Your task to perform on an android device: Open calendar and show me the first week of next month Image 0: 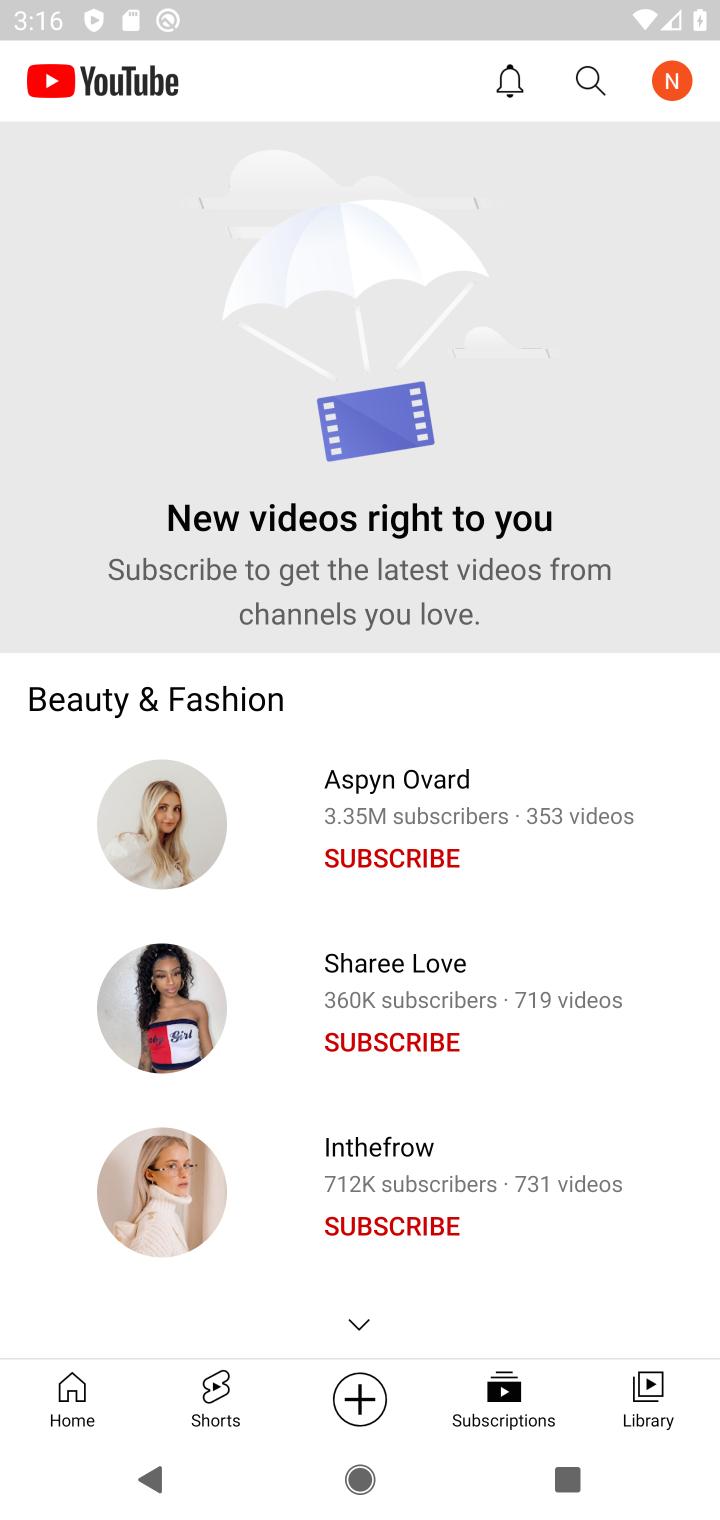
Step 0: press home button
Your task to perform on an android device: Open calendar and show me the first week of next month Image 1: 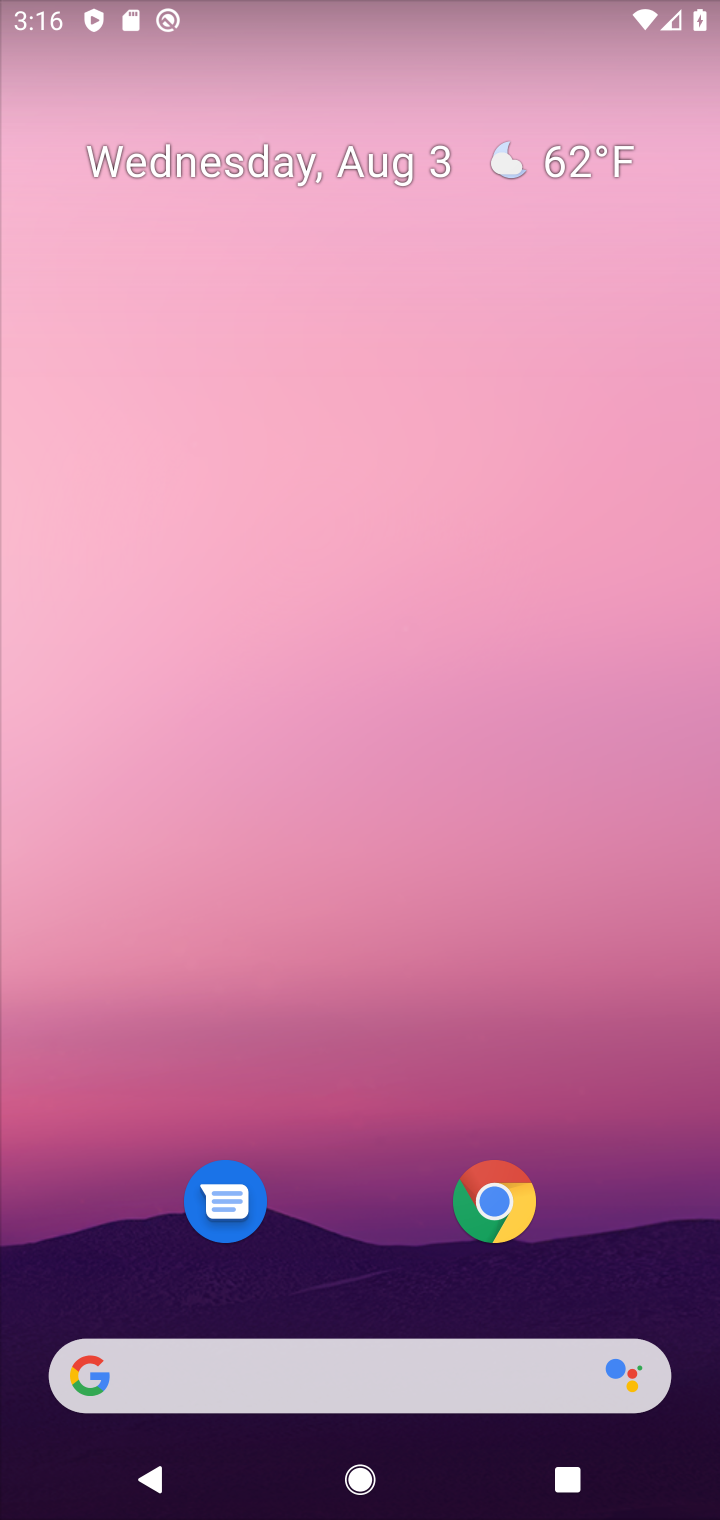
Step 1: drag from (351, 1269) to (396, 130)
Your task to perform on an android device: Open calendar and show me the first week of next month Image 2: 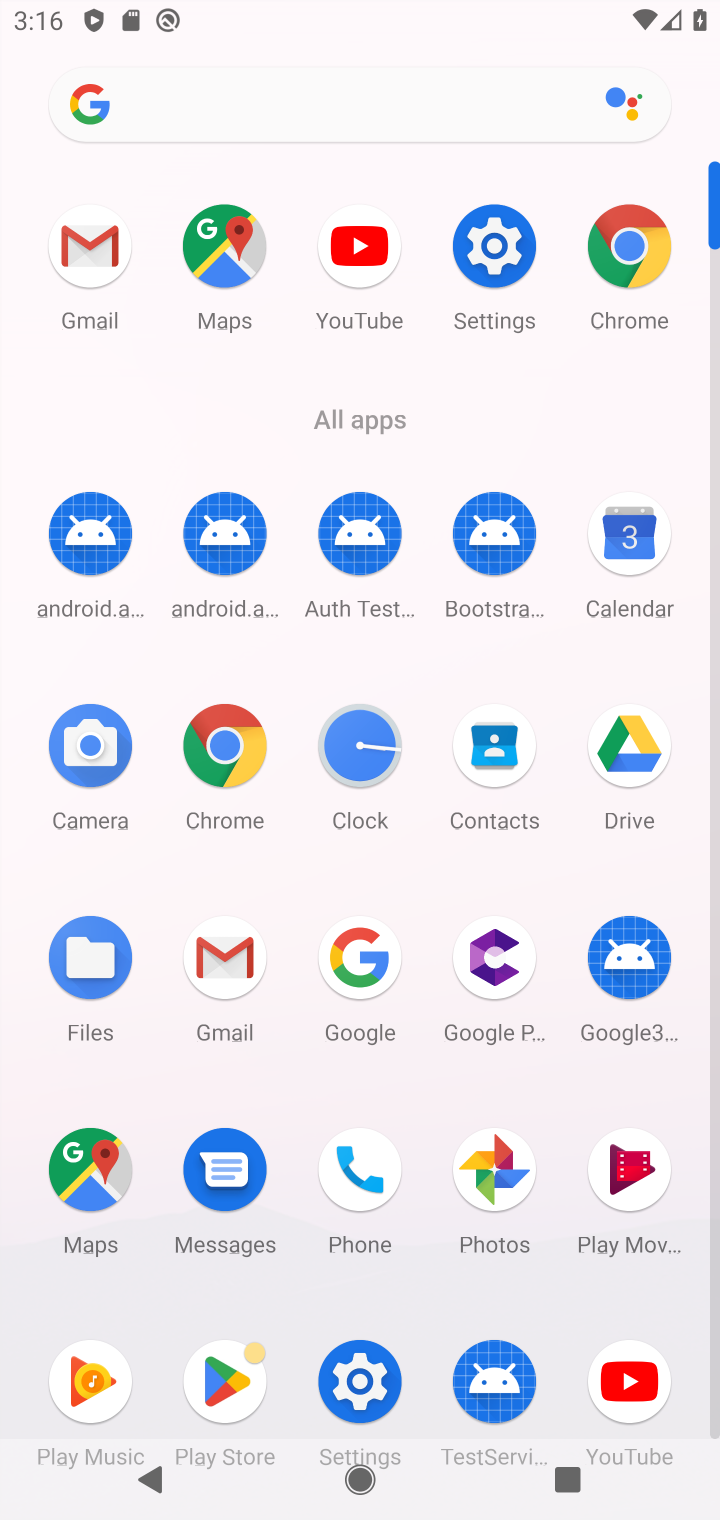
Step 2: click (627, 575)
Your task to perform on an android device: Open calendar and show me the first week of next month Image 3: 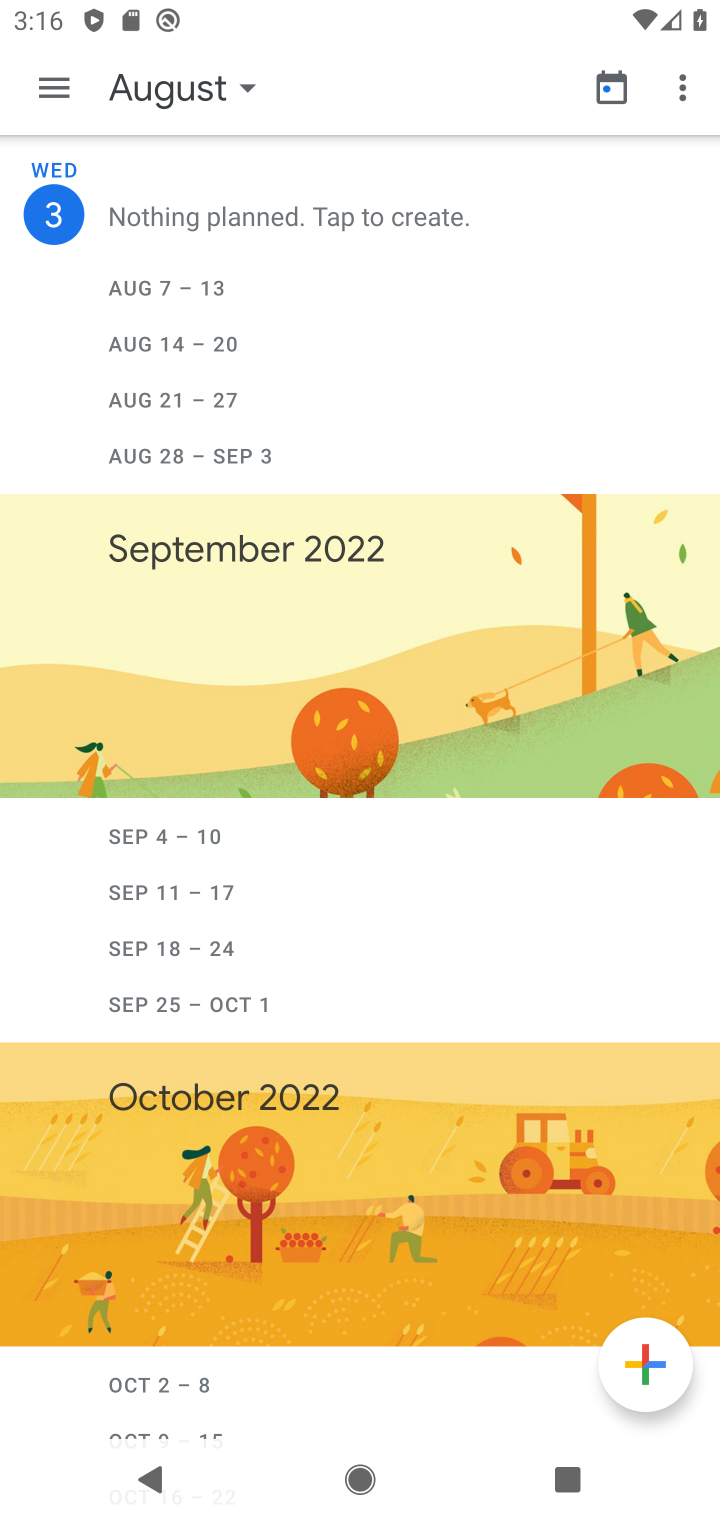
Step 3: click (159, 84)
Your task to perform on an android device: Open calendar and show me the first week of next month Image 4: 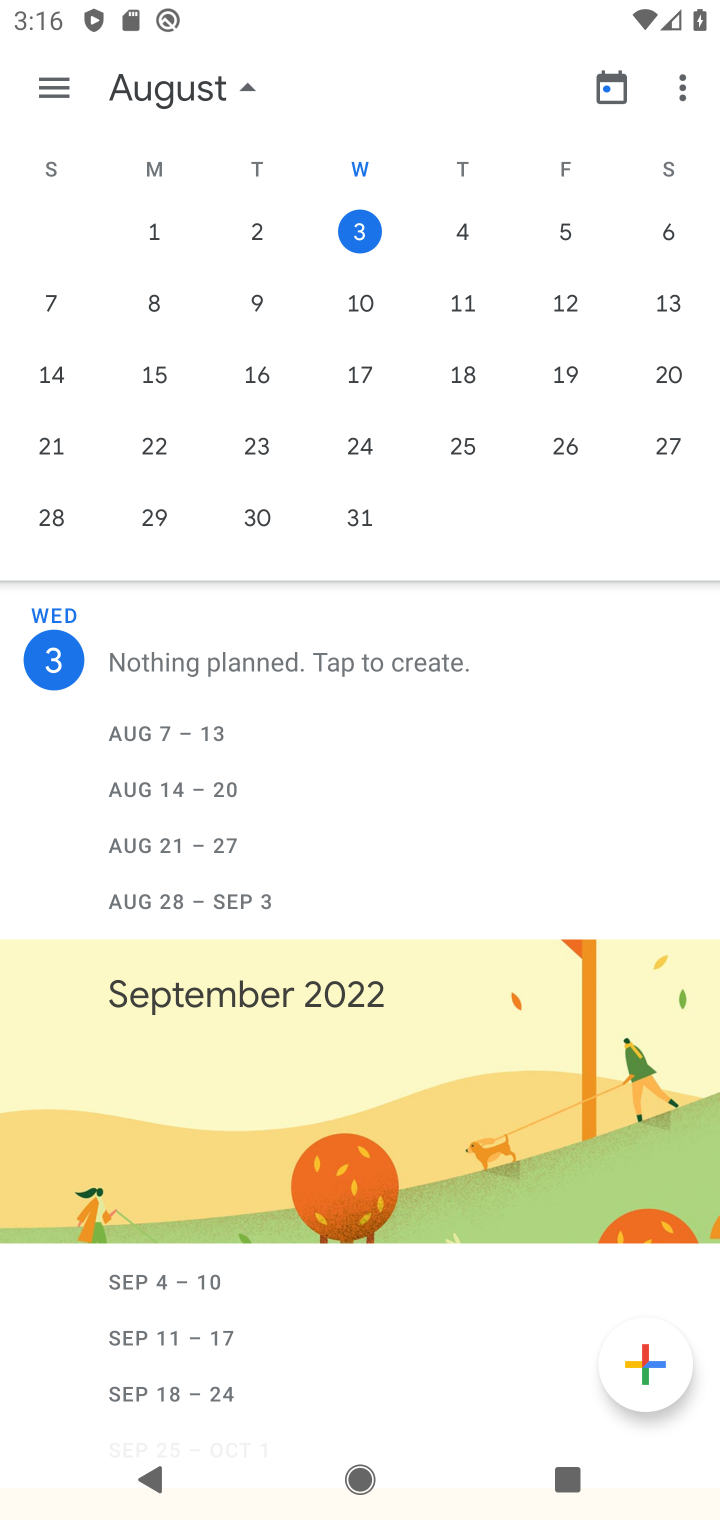
Step 4: drag from (621, 367) to (221, 320)
Your task to perform on an android device: Open calendar and show me the first week of next month Image 5: 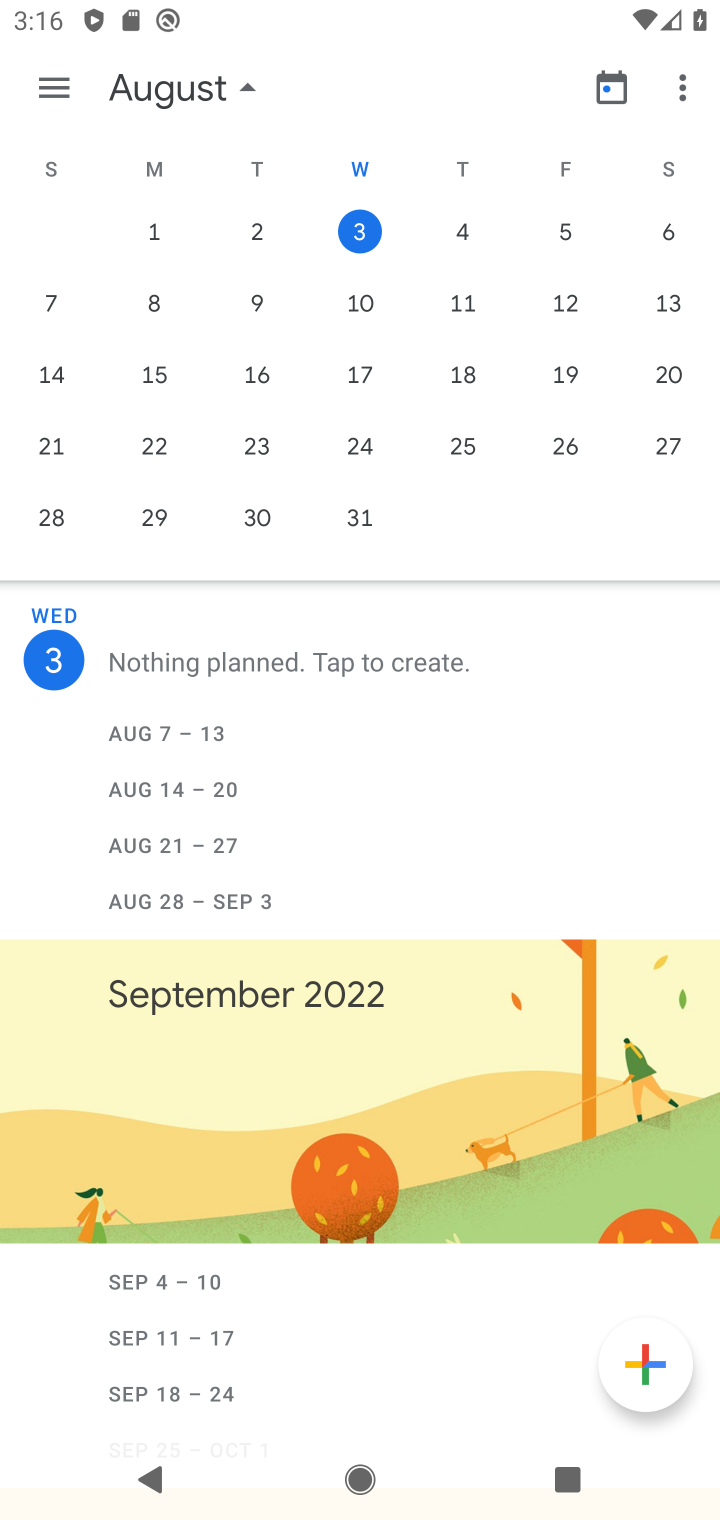
Step 5: drag from (666, 373) to (26, 331)
Your task to perform on an android device: Open calendar and show me the first week of next month Image 6: 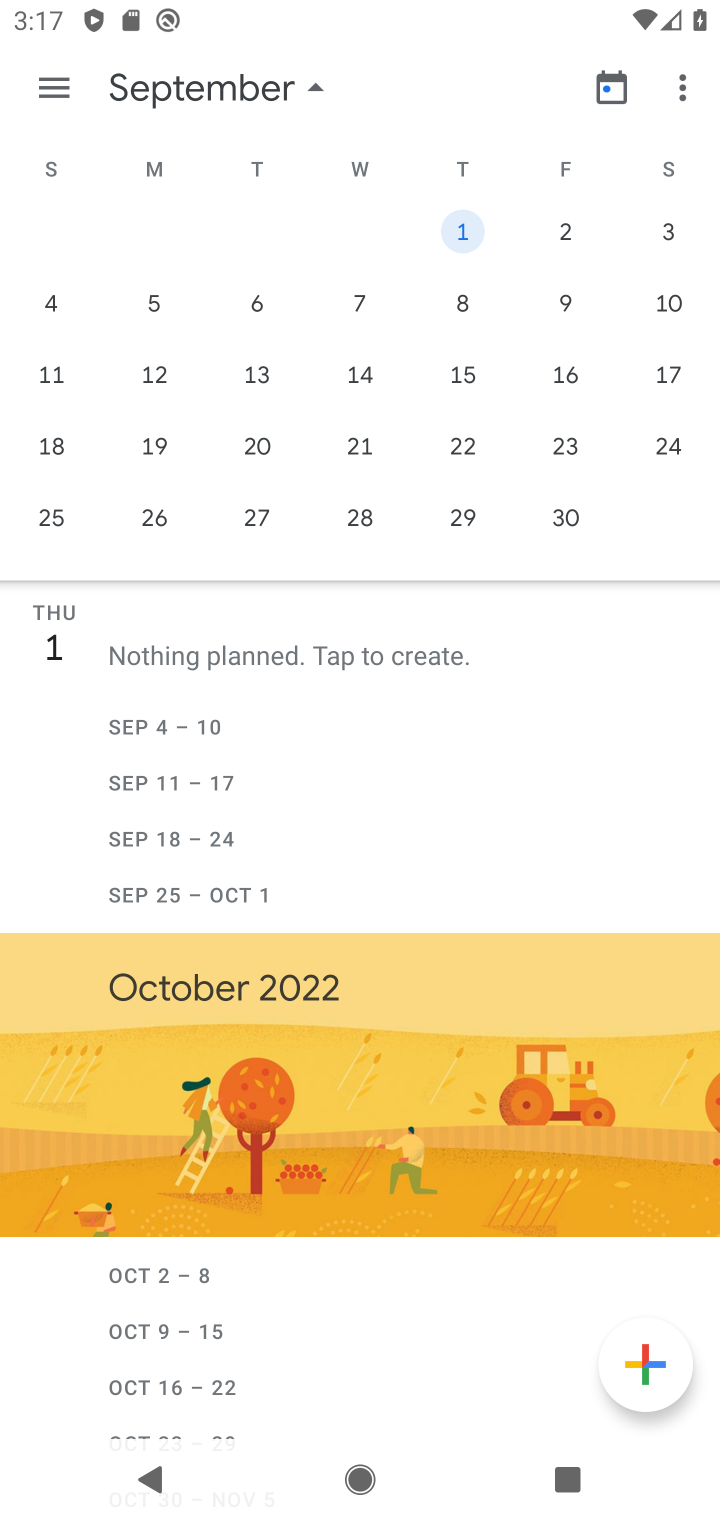
Step 6: click (443, 225)
Your task to perform on an android device: Open calendar and show me the first week of next month Image 7: 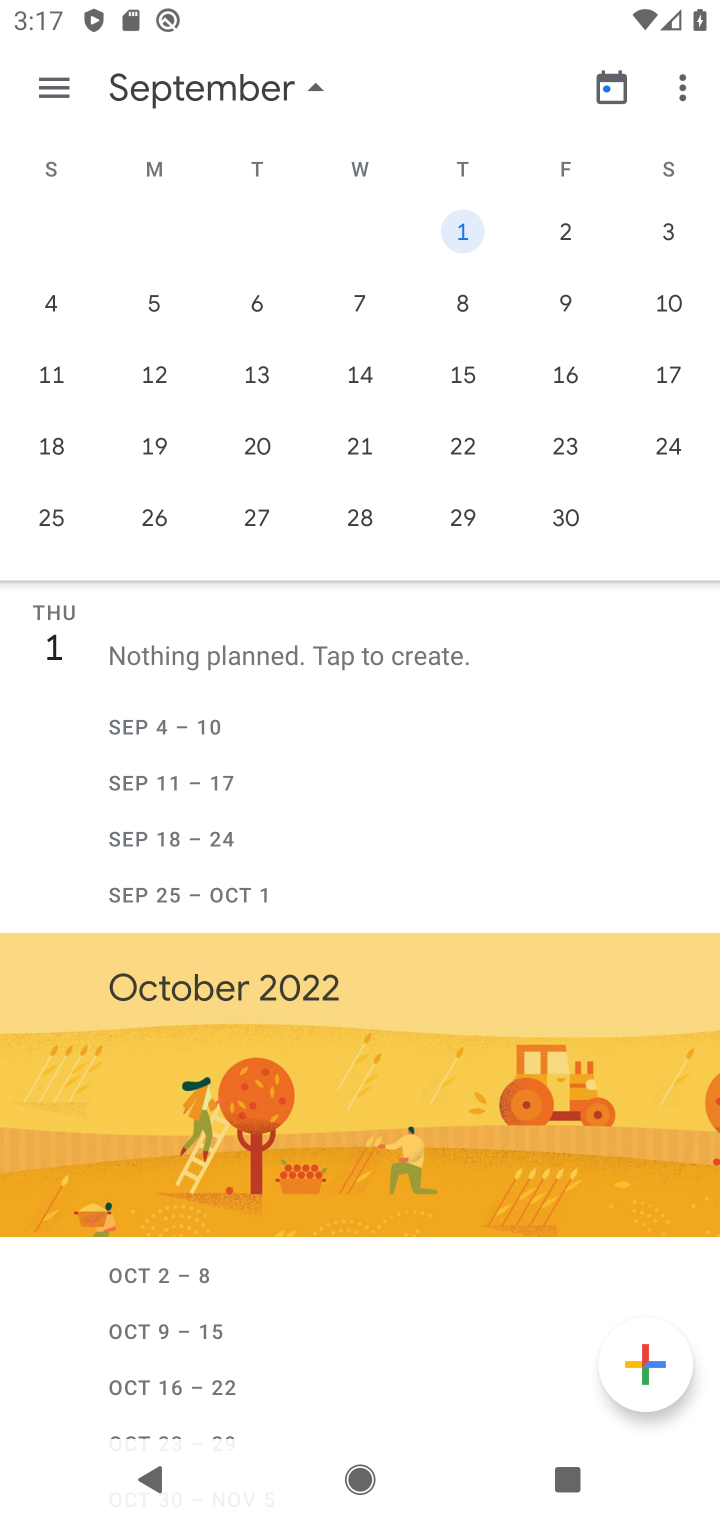
Step 7: task complete